Your task to perform on an android device: check data usage Image 0: 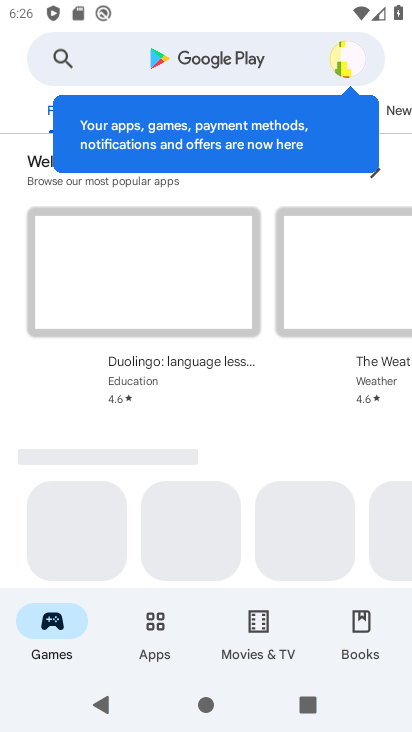
Step 0: press home button
Your task to perform on an android device: check data usage Image 1: 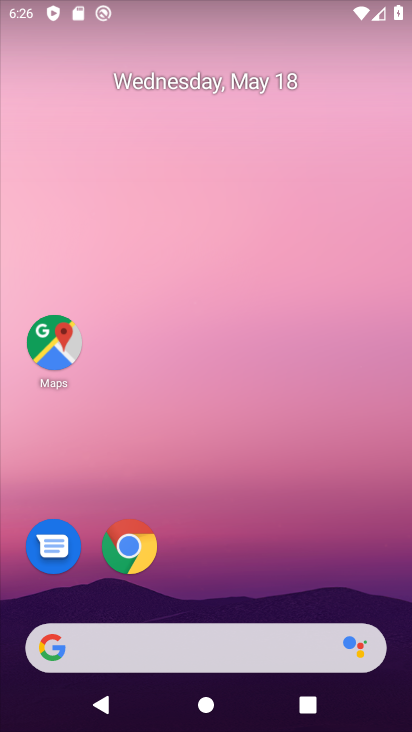
Step 1: drag from (348, 587) to (387, 105)
Your task to perform on an android device: check data usage Image 2: 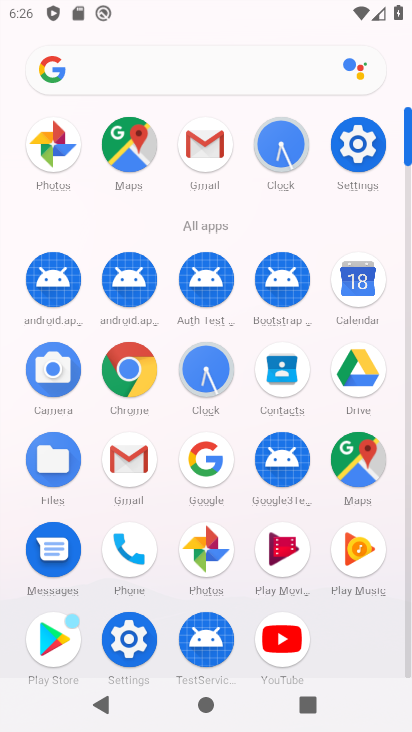
Step 2: click (131, 650)
Your task to perform on an android device: check data usage Image 3: 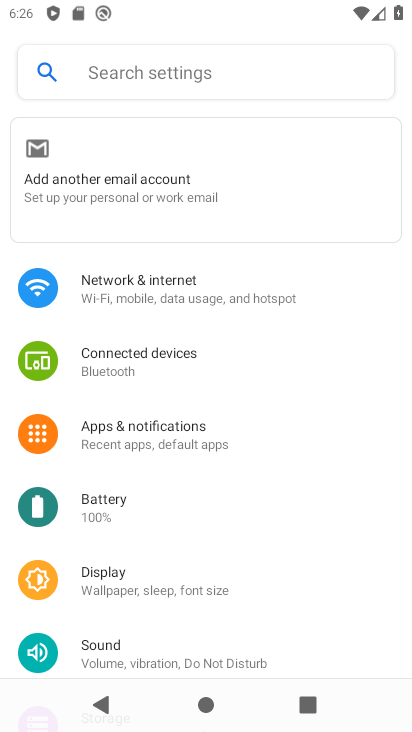
Step 3: click (231, 299)
Your task to perform on an android device: check data usage Image 4: 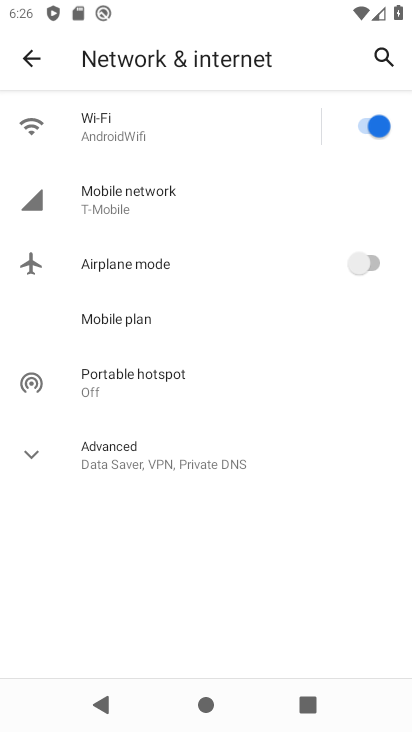
Step 4: click (209, 186)
Your task to perform on an android device: check data usage Image 5: 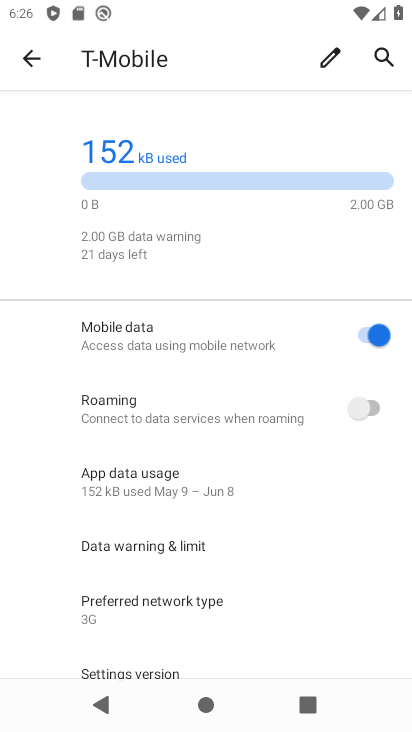
Step 5: click (188, 489)
Your task to perform on an android device: check data usage Image 6: 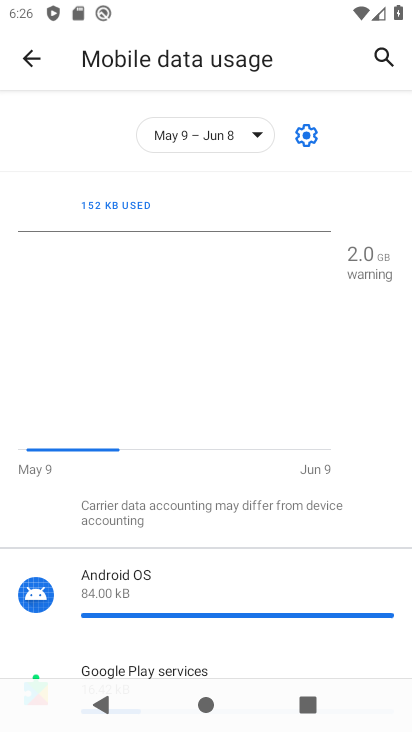
Step 6: task complete